Your task to perform on an android device: open chrome and create a bookmark for the current page Image 0: 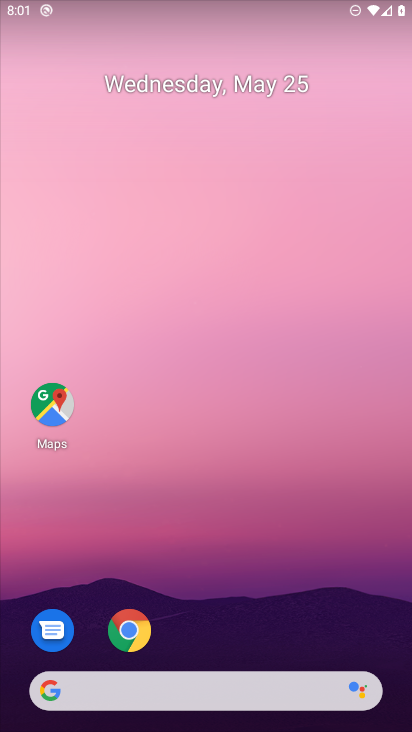
Step 0: click (136, 626)
Your task to perform on an android device: open chrome and create a bookmark for the current page Image 1: 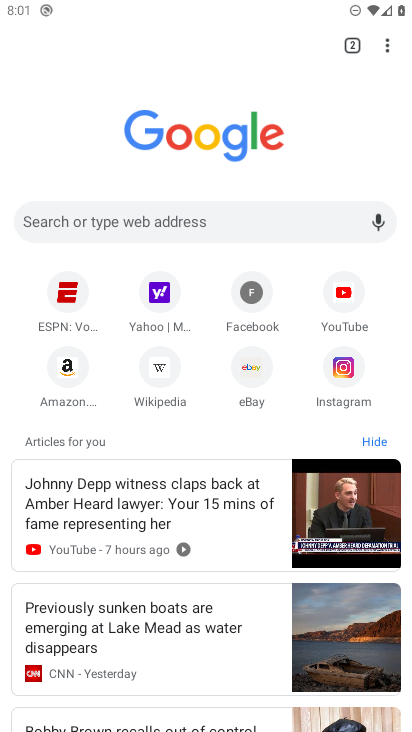
Step 1: click (387, 41)
Your task to perform on an android device: open chrome and create a bookmark for the current page Image 2: 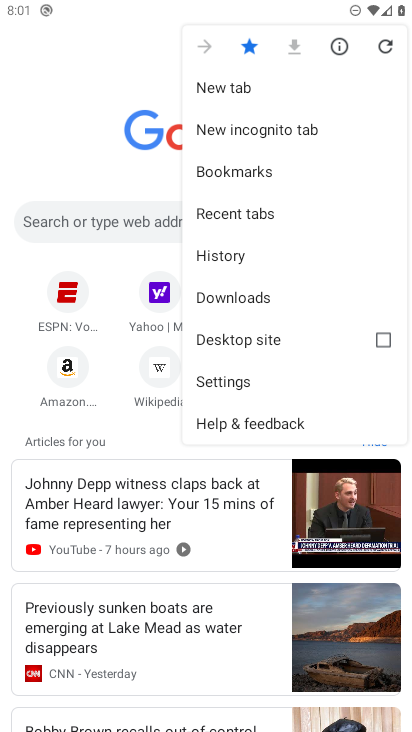
Step 2: task complete